Your task to perform on an android device: Check the settings for the Google Play Books app Image 0: 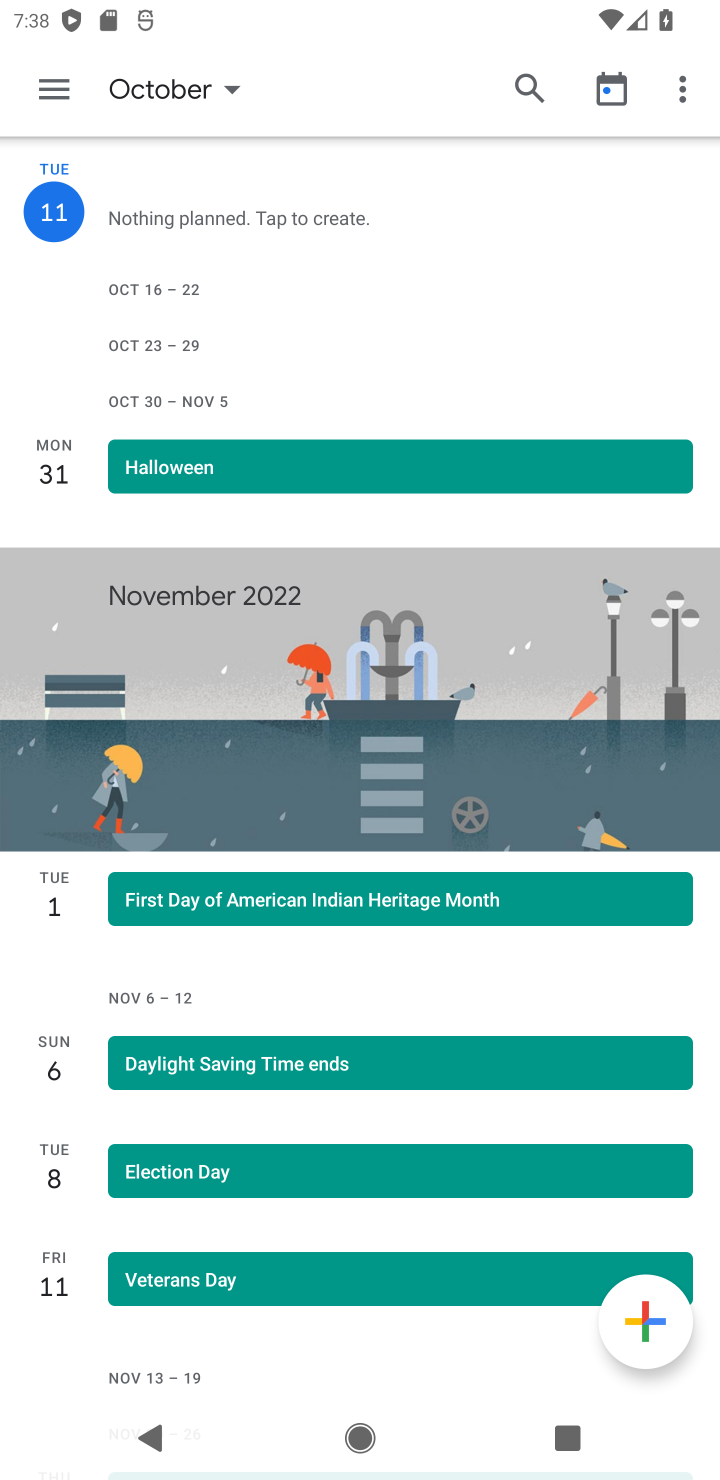
Step 0: press home button
Your task to perform on an android device: Check the settings for the Google Play Books app Image 1: 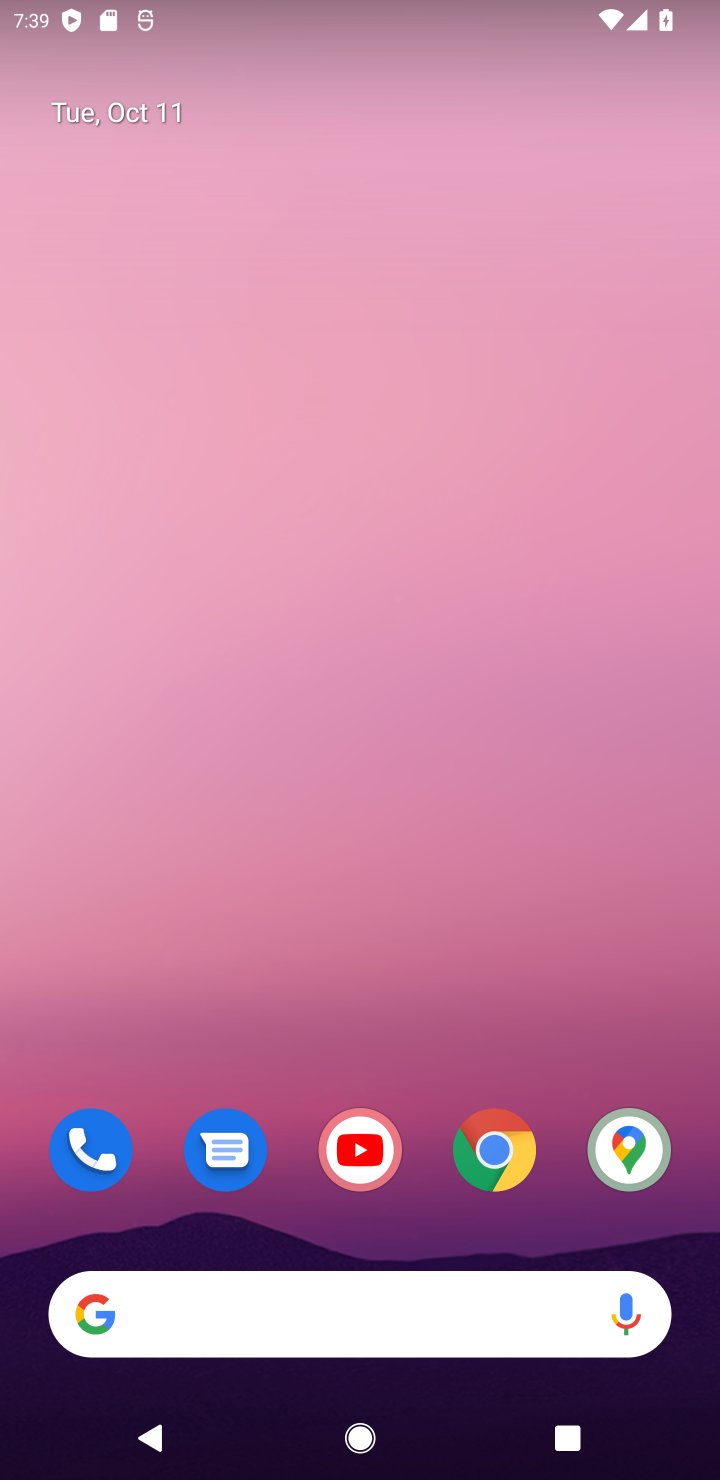
Step 1: task complete